Your task to perform on an android device: all mails in gmail Image 0: 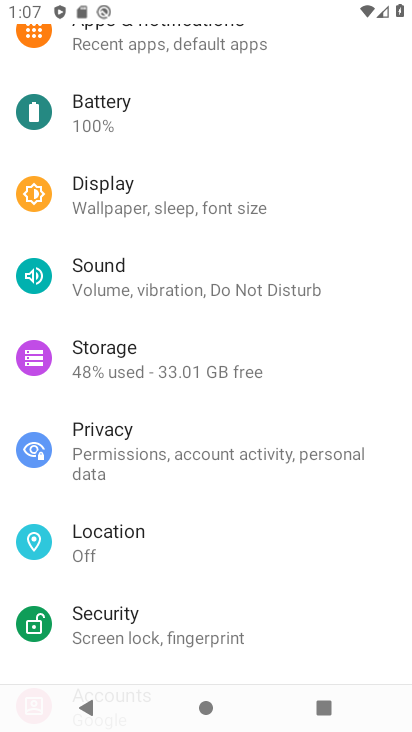
Step 0: click (197, 647)
Your task to perform on an android device: all mails in gmail Image 1: 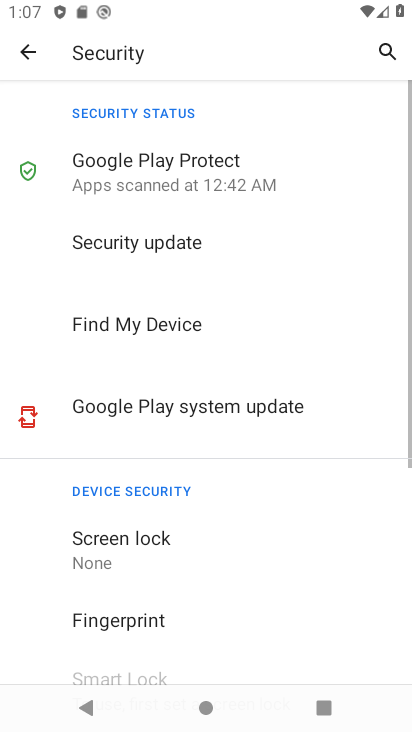
Step 1: press home button
Your task to perform on an android device: all mails in gmail Image 2: 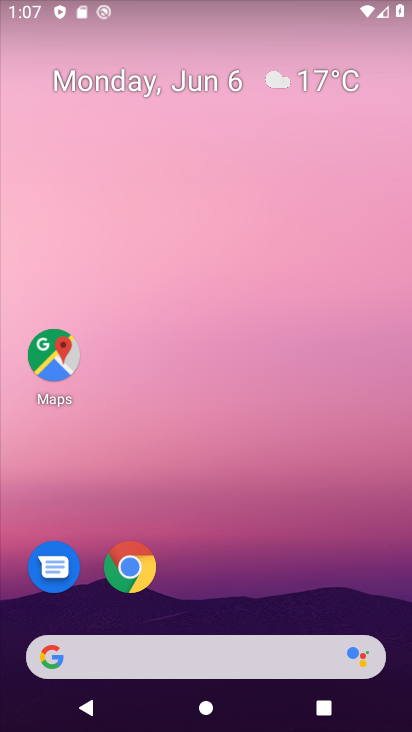
Step 2: drag from (296, 711) to (321, 51)
Your task to perform on an android device: all mails in gmail Image 3: 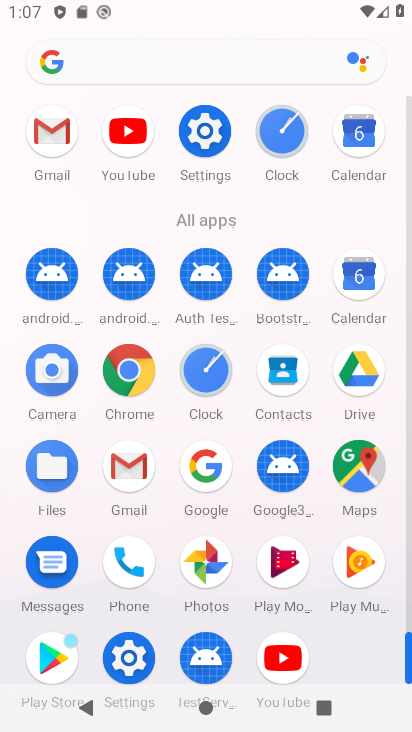
Step 3: click (58, 153)
Your task to perform on an android device: all mails in gmail Image 4: 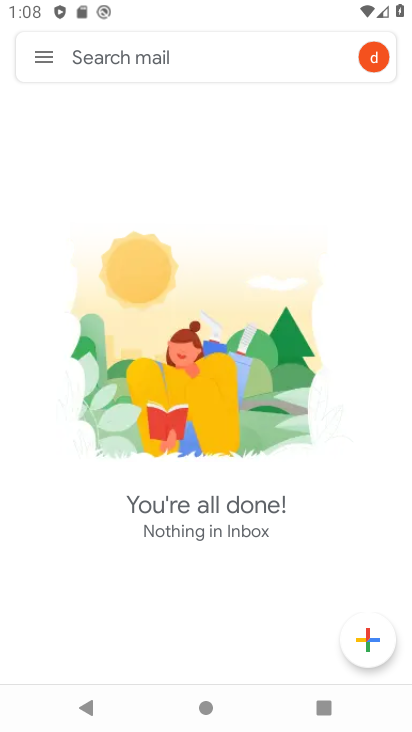
Step 4: click (33, 59)
Your task to perform on an android device: all mails in gmail Image 5: 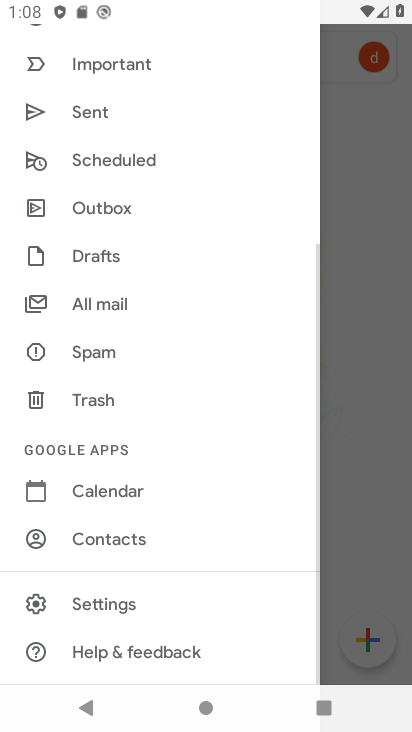
Step 5: click (100, 311)
Your task to perform on an android device: all mails in gmail Image 6: 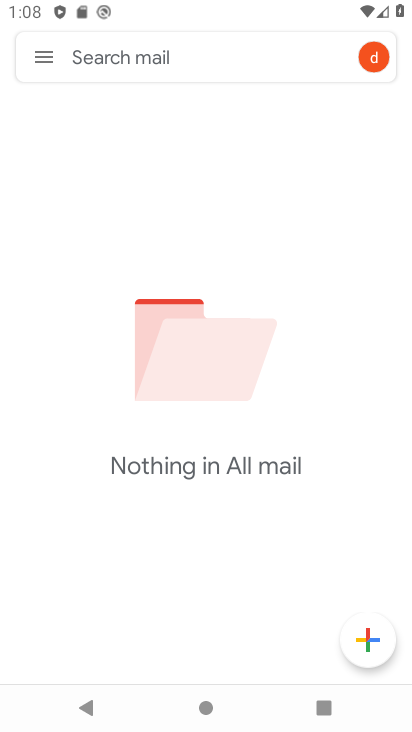
Step 6: task complete